Your task to perform on an android device: check out phone information Image 0: 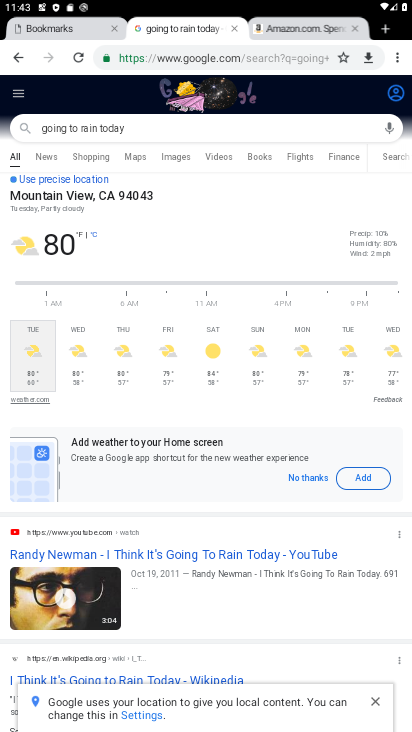
Step 0: press home button
Your task to perform on an android device: check out phone information Image 1: 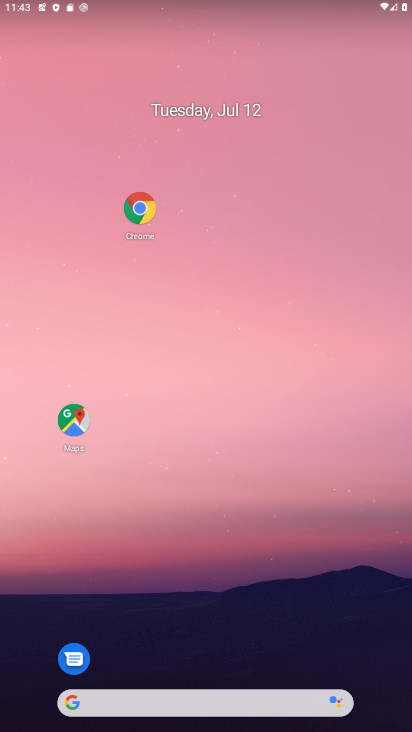
Step 1: drag from (250, 702) to (267, 43)
Your task to perform on an android device: check out phone information Image 2: 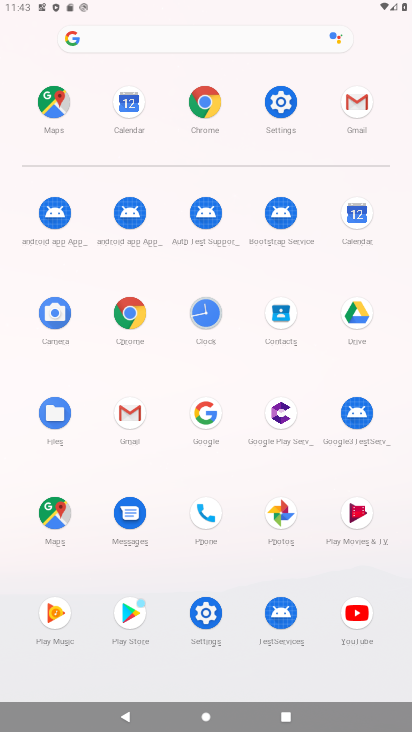
Step 2: click (278, 94)
Your task to perform on an android device: check out phone information Image 3: 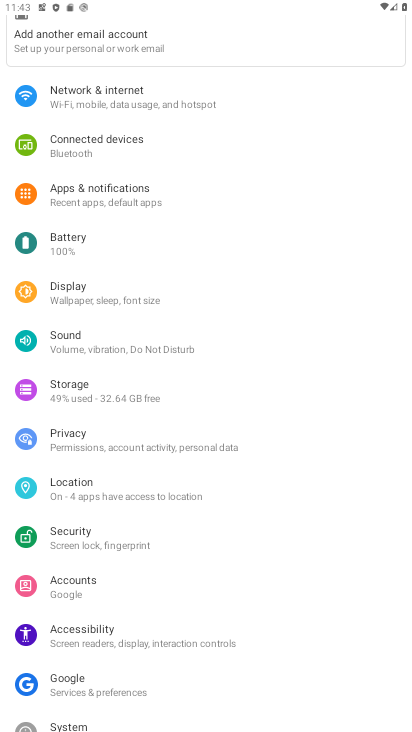
Step 3: drag from (316, 643) to (347, 80)
Your task to perform on an android device: check out phone information Image 4: 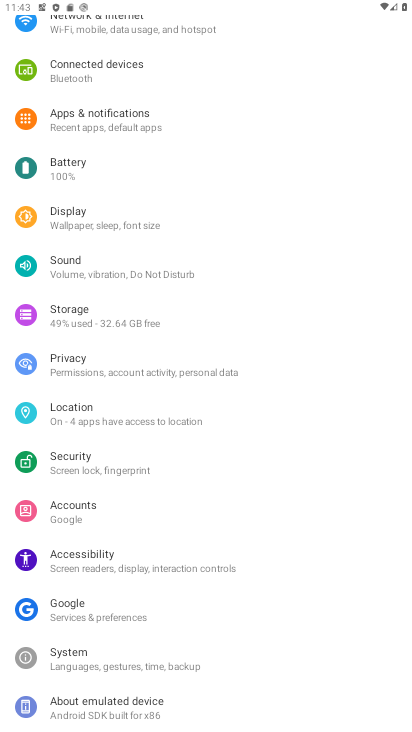
Step 4: click (161, 710)
Your task to perform on an android device: check out phone information Image 5: 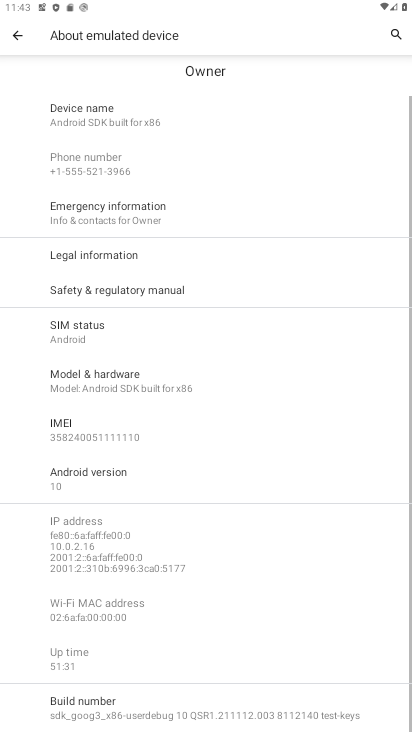
Step 5: task complete